Your task to perform on an android device: change keyboard looks Image 0: 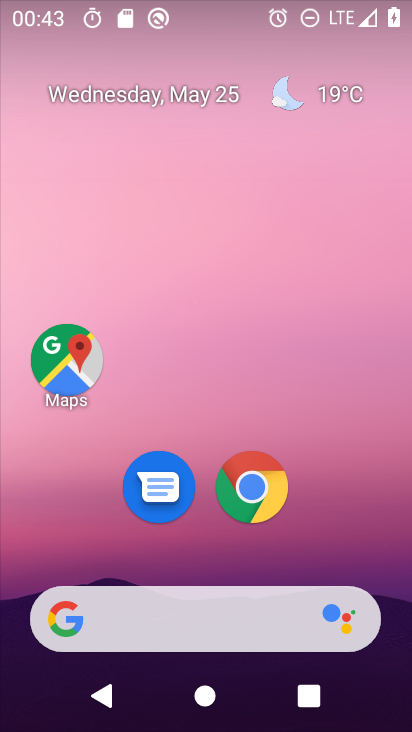
Step 0: drag from (361, 501) to (345, 13)
Your task to perform on an android device: change keyboard looks Image 1: 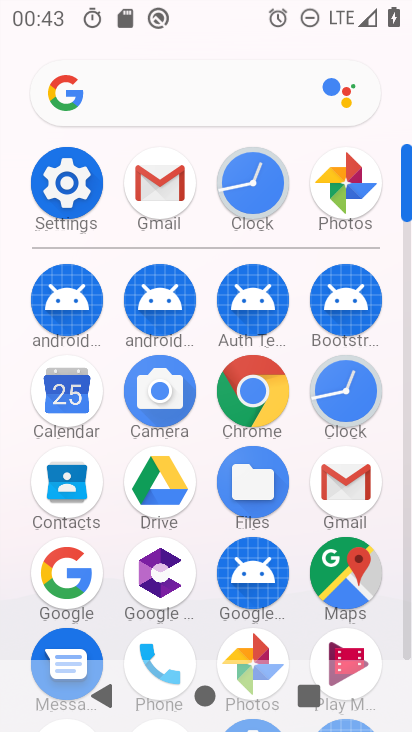
Step 1: click (85, 184)
Your task to perform on an android device: change keyboard looks Image 2: 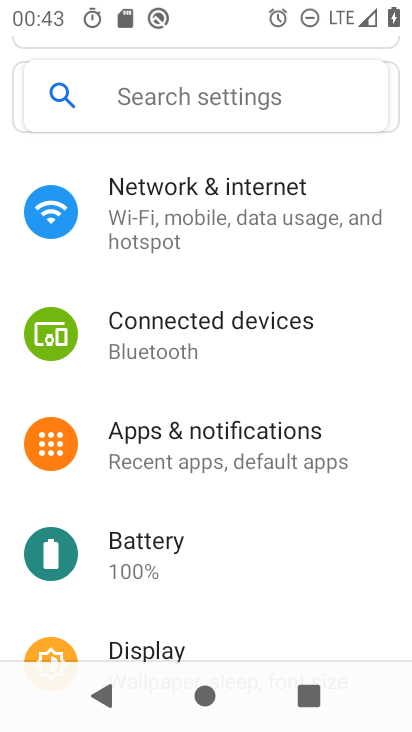
Step 2: drag from (254, 573) to (227, 26)
Your task to perform on an android device: change keyboard looks Image 3: 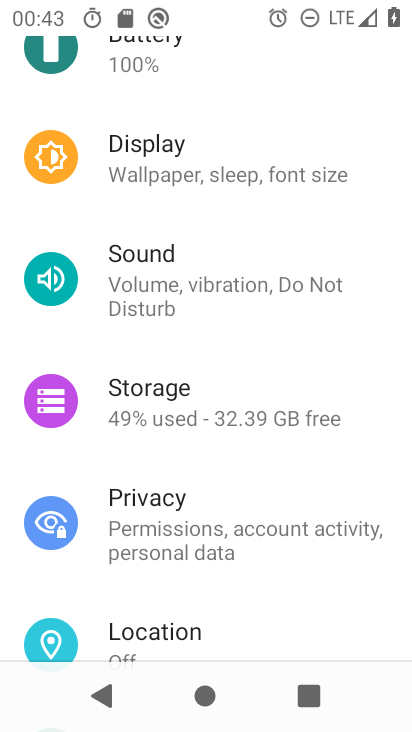
Step 3: drag from (153, 571) to (185, 48)
Your task to perform on an android device: change keyboard looks Image 4: 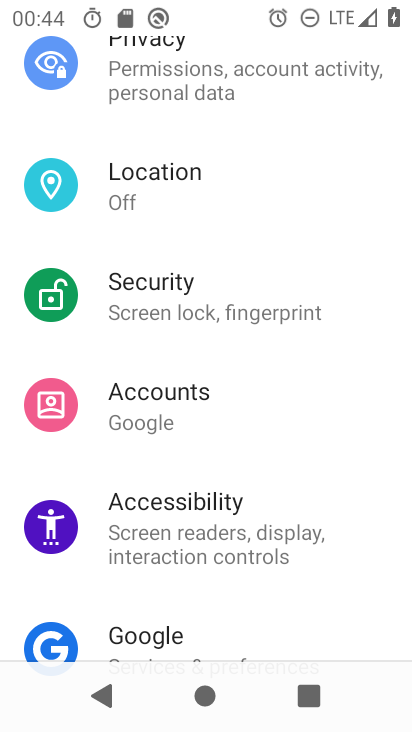
Step 4: drag from (325, 588) to (318, 119)
Your task to perform on an android device: change keyboard looks Image 5: 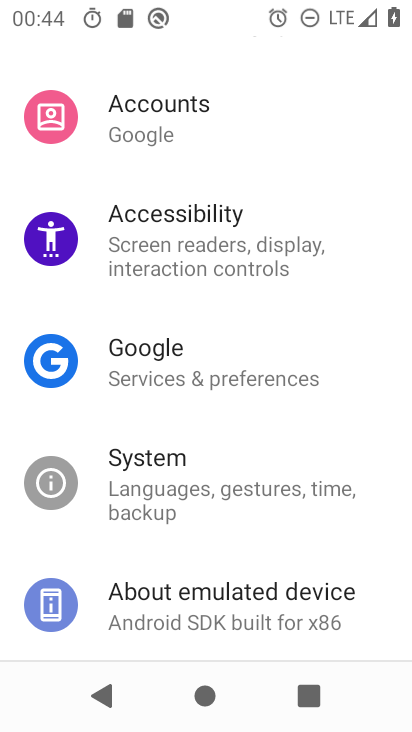
Step 5: click (166, 480)
Your task to perform on an android device: change keyboard looks Image 6: 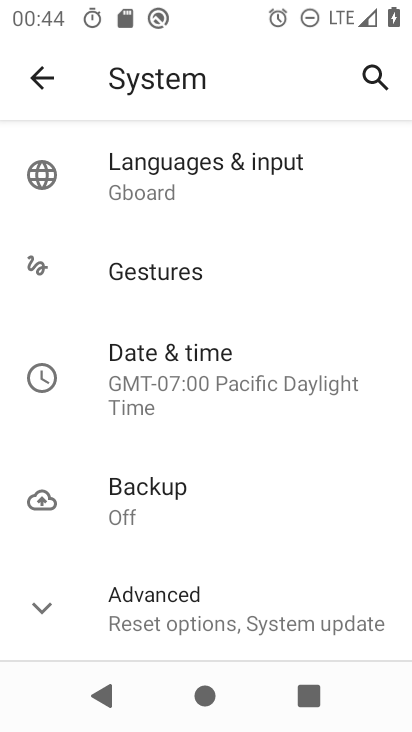
Step 6: click (163, 174)
Your task to perform on an android device: change keyboard looks Image 7: 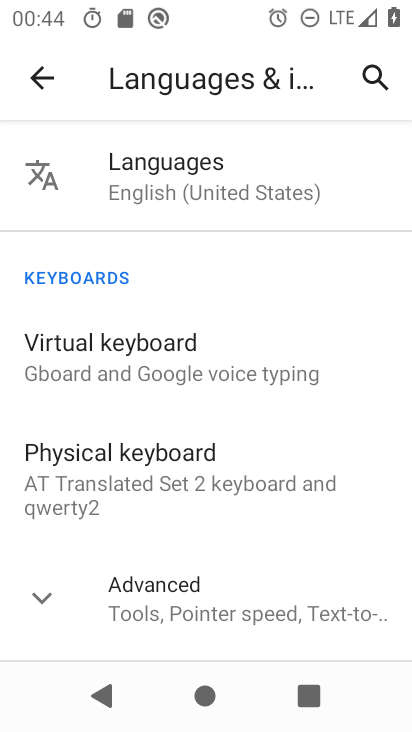
Step 7: click (118, 353)
Your task to perform on an android device: change keyboard looks Image 8: 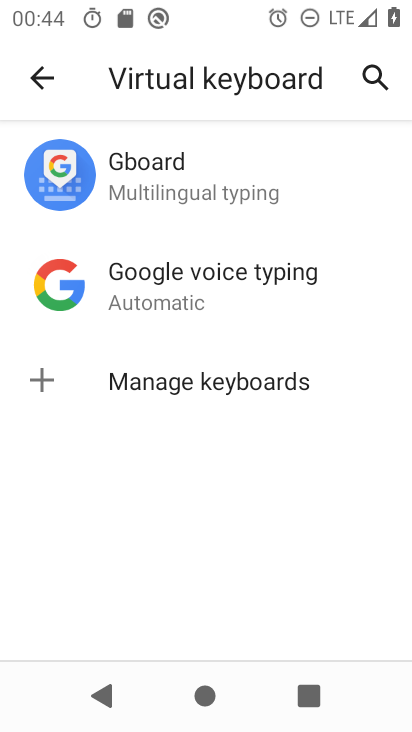
Step 8: click (154, 187)
Your task to perform on an android device: change keyboard looks Image 9: 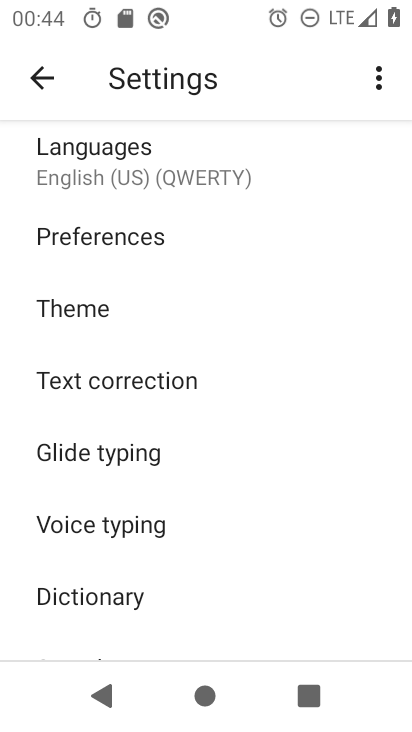
Step 9: click (72, 308)
Your task to perform on an android device: change keyboard looks Image 10: 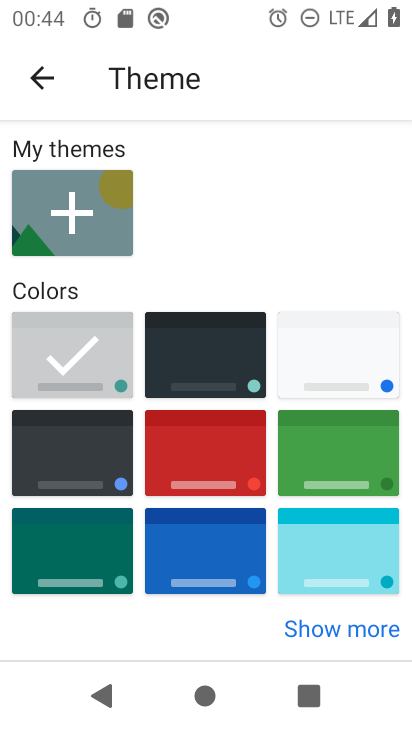
Step 10: click (314, 479)
Your task to perform on an android device: change keyboard looks Image 11: 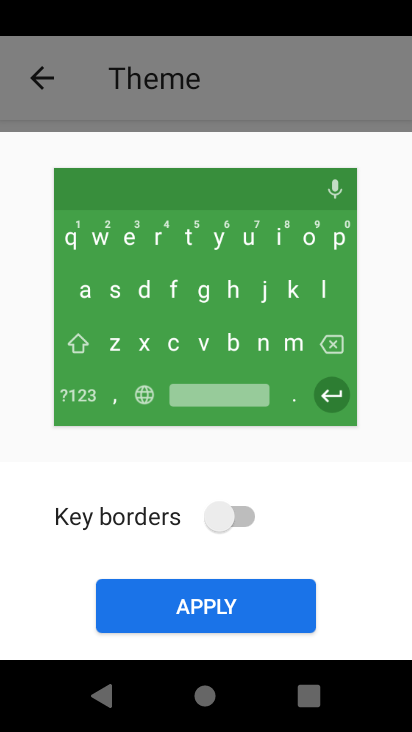
Step 11: click (236, 512)
Your task to perform on an android device: change keyboard looks Image 12: 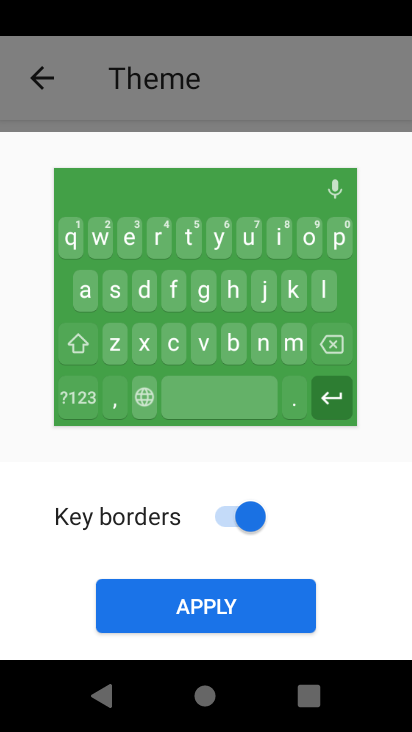
Step 12: click (197, 613)
Your task to perform on an android device: change keyboard looks Image 13: 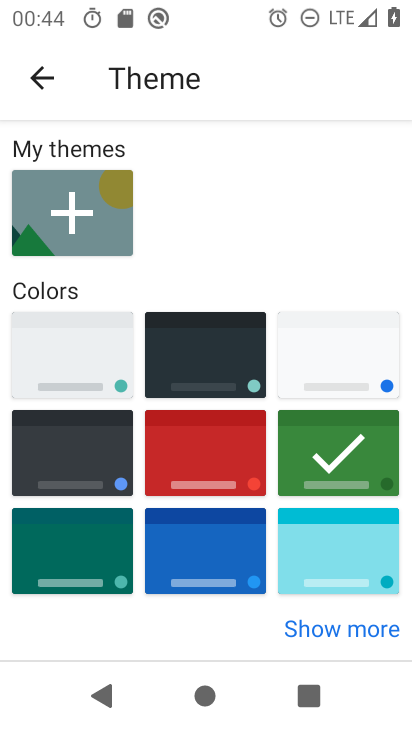
Step 13: task complete